Your task to perform on an android device: refresh tabs in the chrome app Image 0: 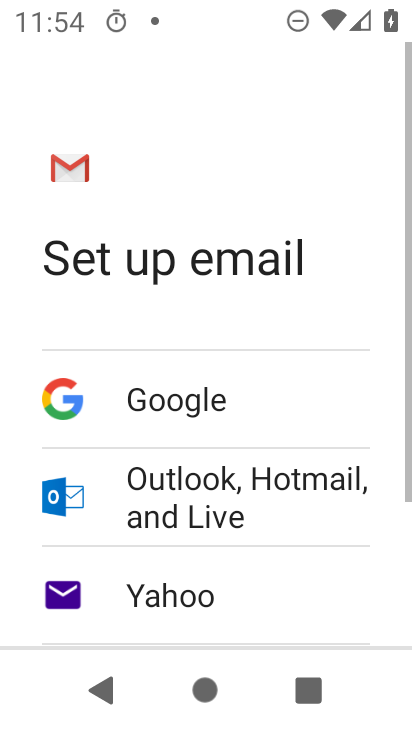
Step 0: press back button
Your task to perform on an android device: refresh tabs in the chrome app Image 1: 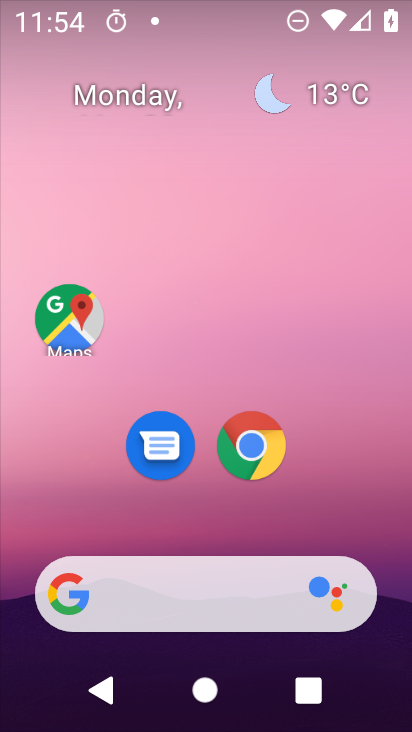
Step 1: click (252, 446)
Your task to perform on an android device: refresh tabs in the chrome app Image 2: 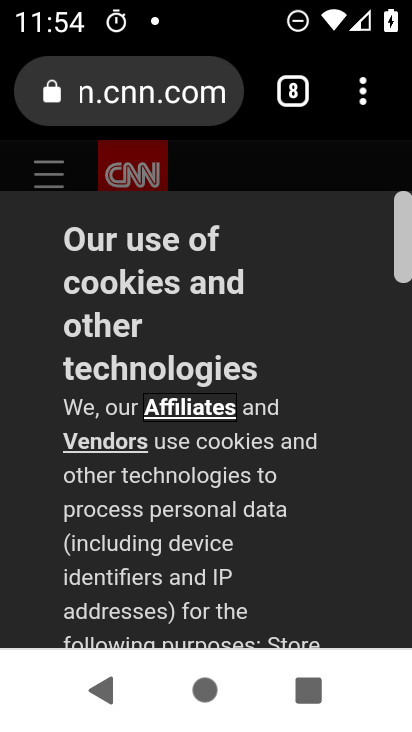
Step 2: task complete